Your task to perform on an android device: change text size in settings app Image 0: 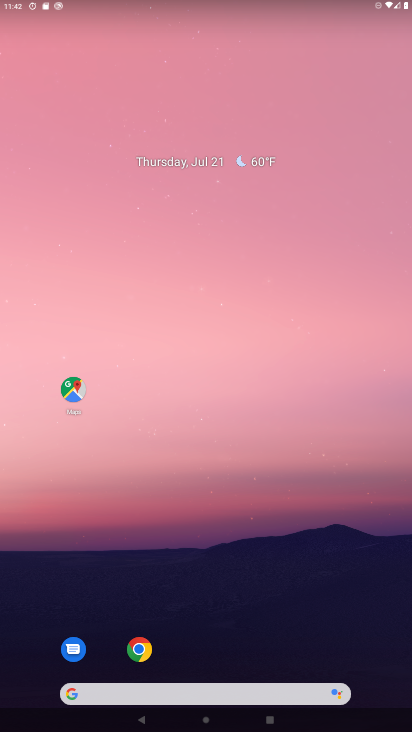
Step 0: drag from (399, 504) to (403, 56)
Your task to perform on an android device: change text size in settings app Image 1: 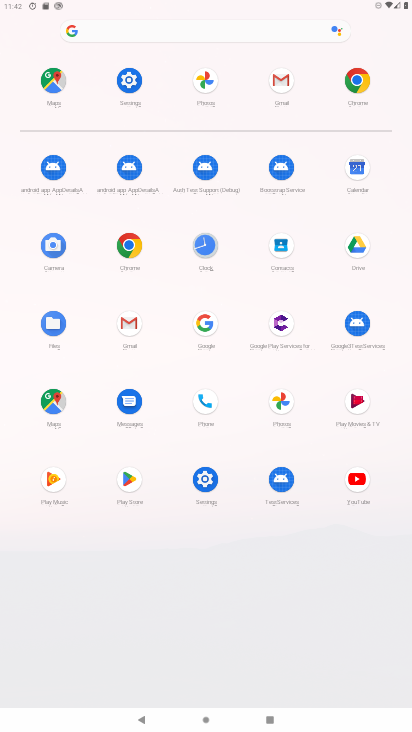
Step 1: click (125, 79)
Your task to perform on an android device: change text size in settings app Image 2: 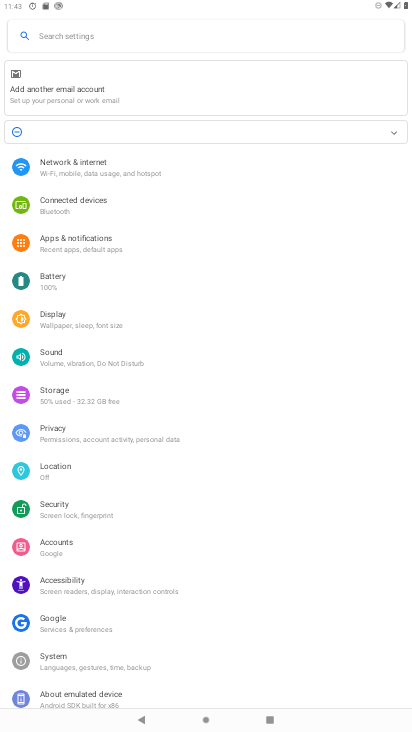
Step 2: click (53, 319)
Your task to perform on an android device: change text size in settings app Image 3: 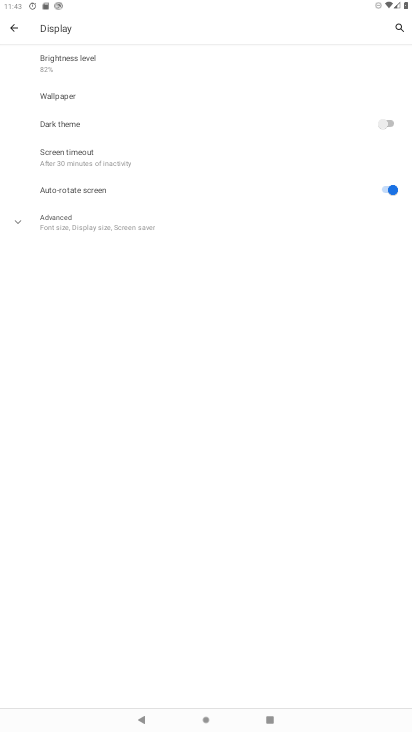
Step 3: click (20, 225)
Your task to perform on an android device: change text size in settings app Image 4: 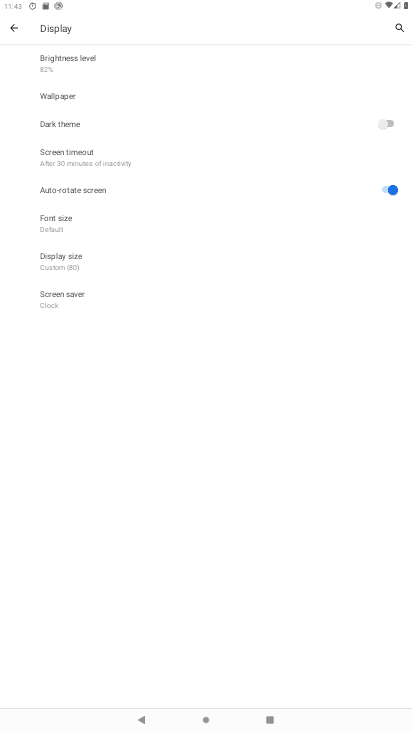
Step 4: click (55, 220)
Your task to perform on an android device: change text size in settings app Image 5: 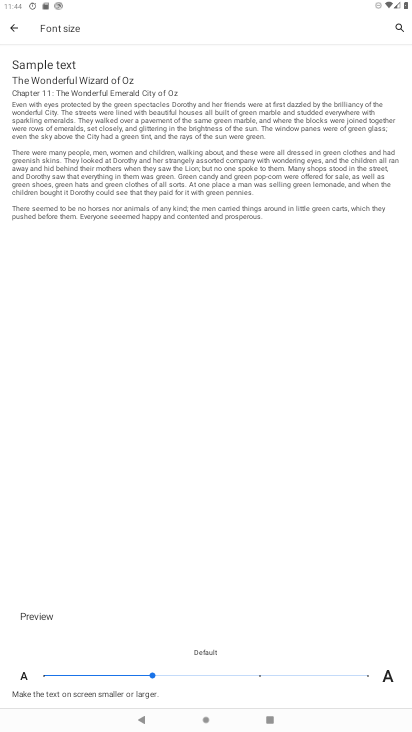
Step 5: click (367, 674)
Your task to perform on an android device: change text size in settings app Image 6: 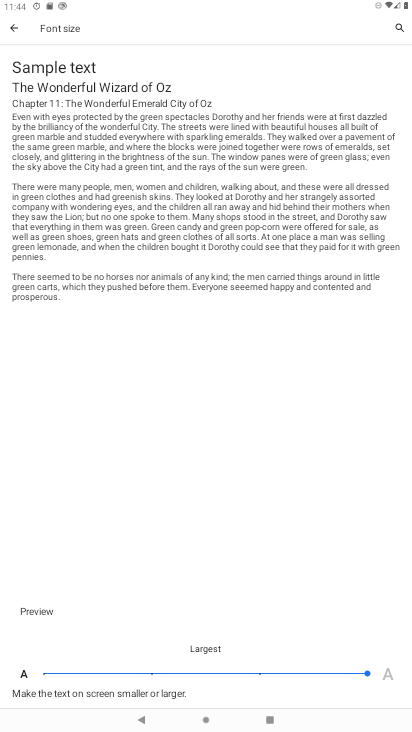
Step 6: task complete